Your task to perform on an android device: toggle wifi Image 0: 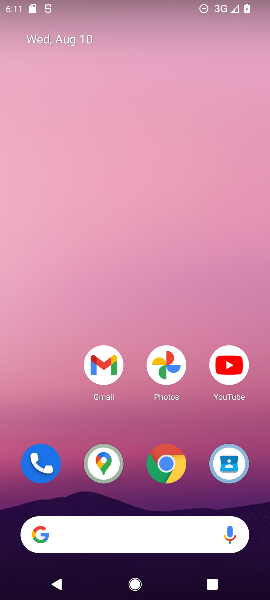
Step 0: drag from (136, 495) to (142, 6)
Your task to perform on an android device: toggle wifi Image 1: 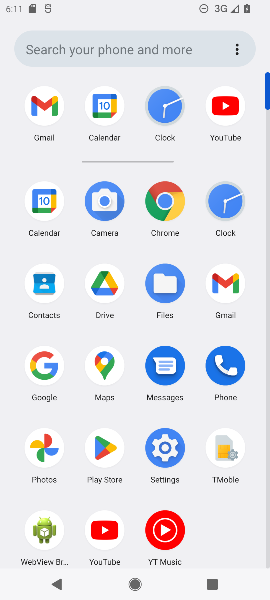
Step 1: click (165, 449)
Your task to perform on an android device: toggle wifi Image 2: 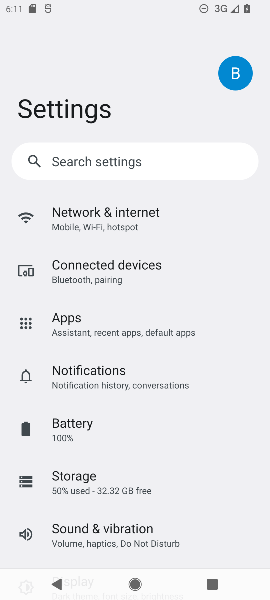
Step 2: click (112, 213)
Your task to perform on an android device: toggle wifi Image 3: 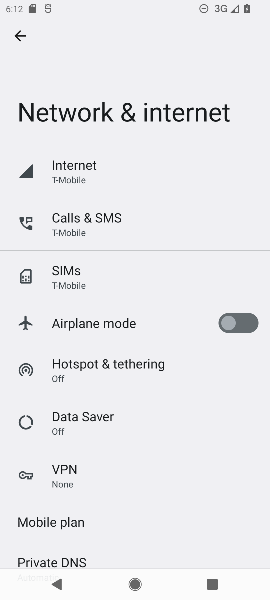
Step 3: click (72, 159)
Your task to perform on an android device: toggle wifi Image 4: 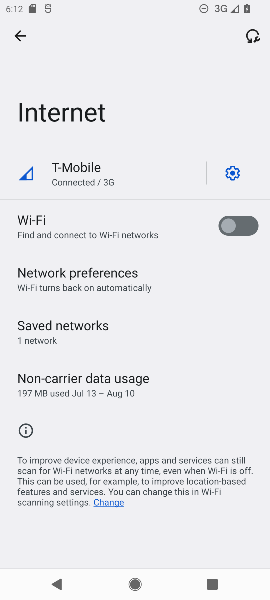
Step 4: click (233, 224)
Your task to perform on an android device: toggle wifi Image 5: 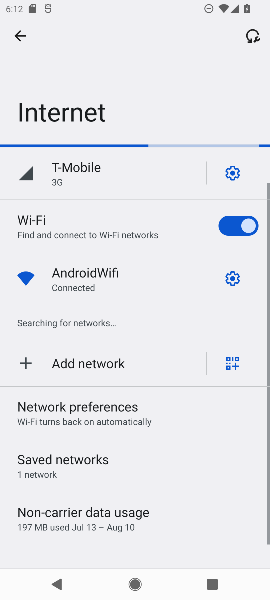
Step 5: task complete